Your task to perform on an android device: turn on the 24-hour format for clock Image 0: 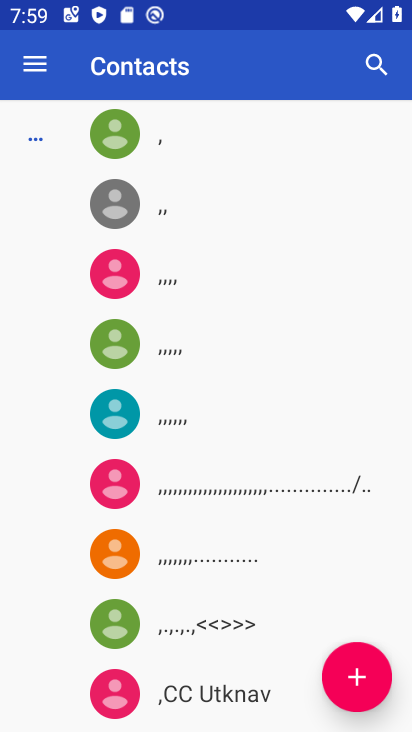
Step 0: press back button
Your task to perform on an android device: turn on the 24-hour format for clock Image 1: 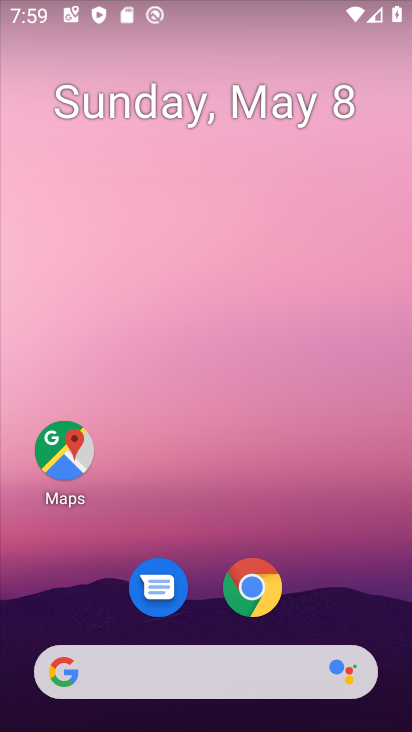
Step 1: drag from (189, 545) to (172, 2)
Your task to perform on an android device: turn on the 24-hour format for clock Image 2: 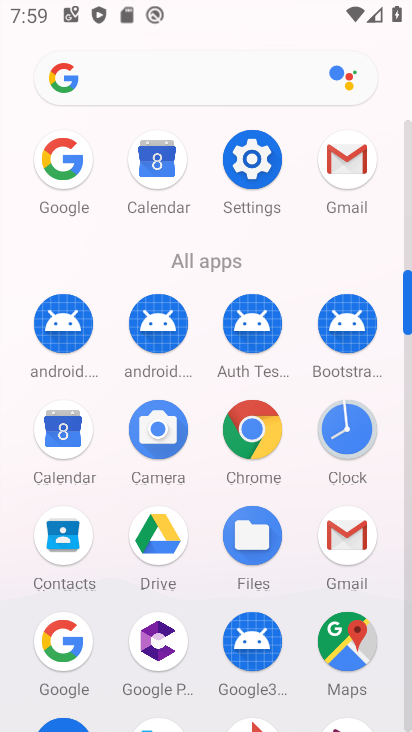
Step 2: click (349, 430)
Your task to perform on an android device: turn on the 24-hour format for clock Image 3: 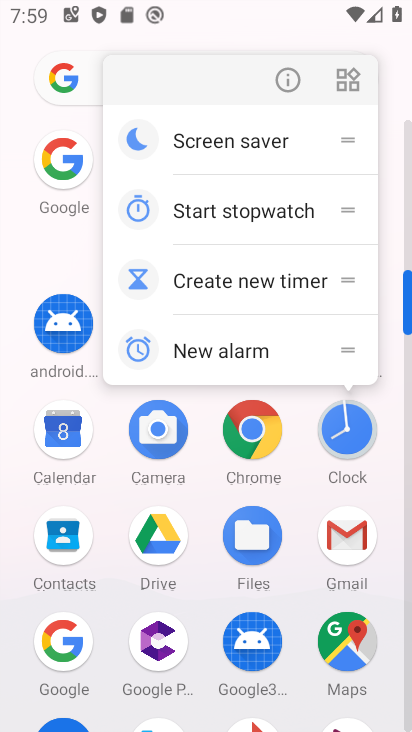
Step 3: click (344, 429)
Your task to perform on an android device: turn on the 24-hour format for clock Image 4: 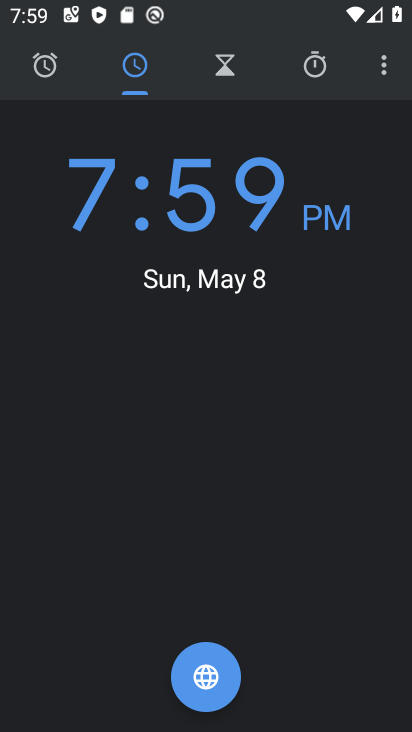
Step 4: click (385, 66)
Your task to perform on an android device: turn on the 24-hour format for clock Image 5: 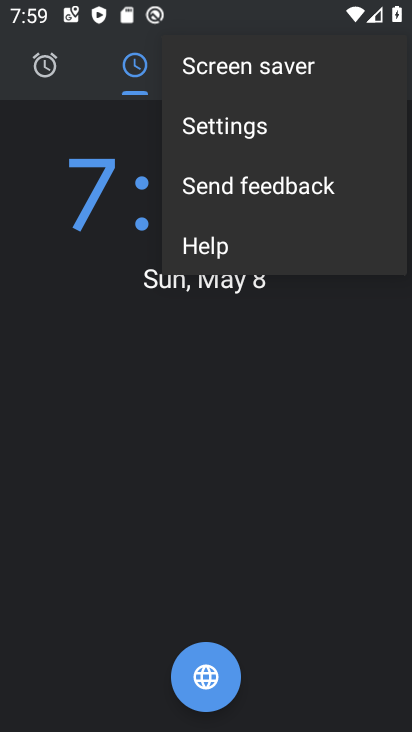
Step 5: click (257, 127)
Your task to perform on an android device: turn on the 24-hour format for clock Image 6: 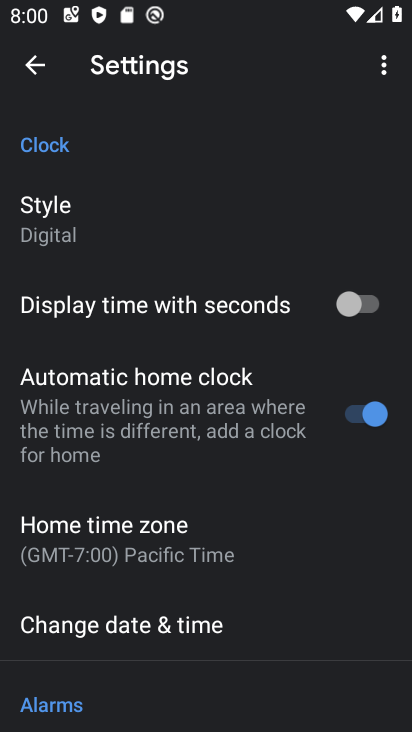
Step 6: drag from (223, 507) to (234, 430)
Your task to perform on an android device: turn on the 24-hour format for clock Image 7: 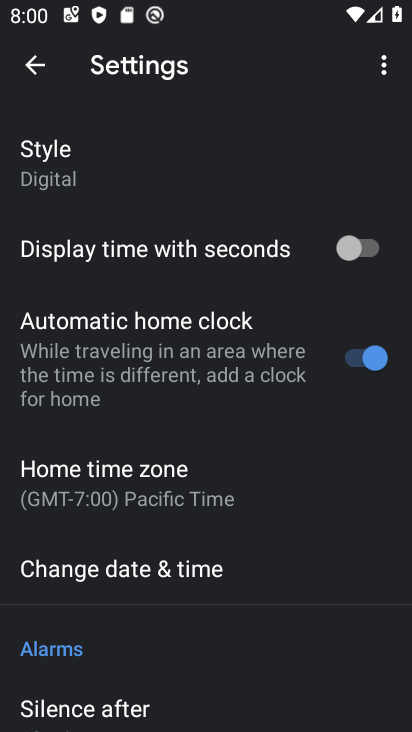
Step 7: click (149, 567)
Your task to perform on an android device: turn on the 24-hour format for clock Image 8: 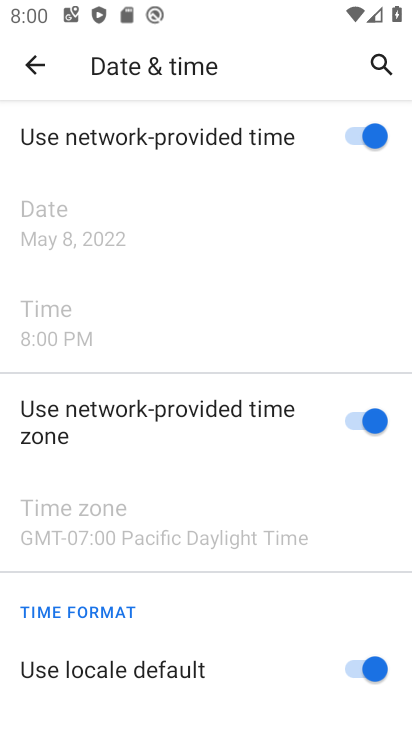
Step 8: drag from (191, 618) to (258, 454)
Your task to perform on an android device: turn on the 24-hour format for clock Image 9: 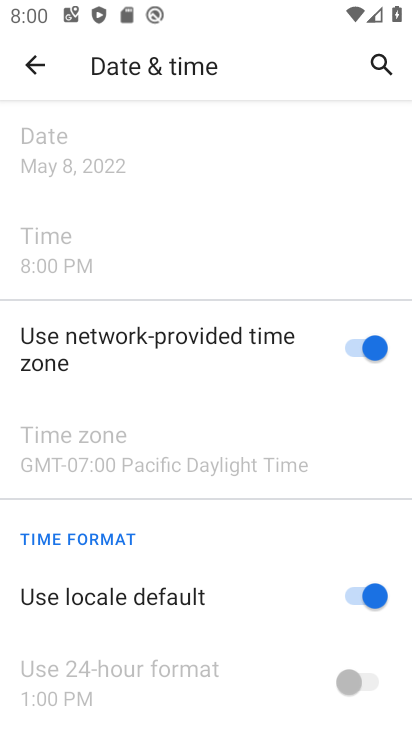
Step 9: click (371, 593)
Your task to perform on an android device: turn on the 24-hour format for clock Image 10: 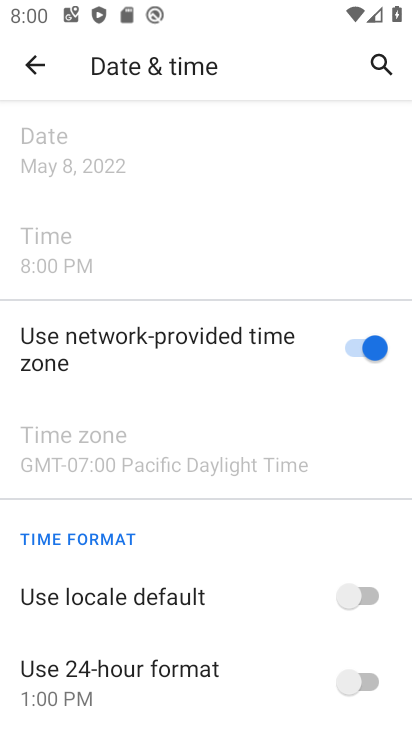
Step 10: click (352, 675)
Your task to perform on an android device: turn on the 24-hour format for clock Image 11: 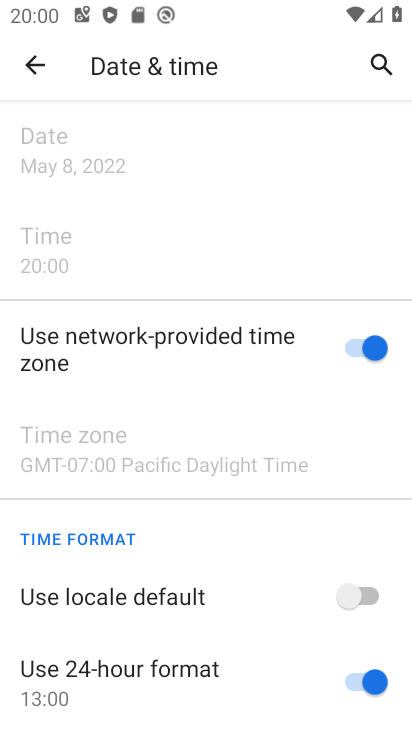
Step 11: task complete